Your task to perform on an android device: toggle translation in the chrome app Image 0: 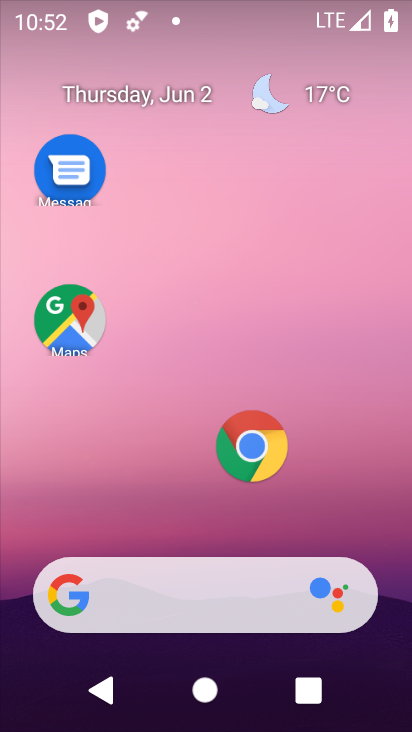
Step 0: press home button
Your task to perform on an android device: toggle translation in the chrome app Image 1: 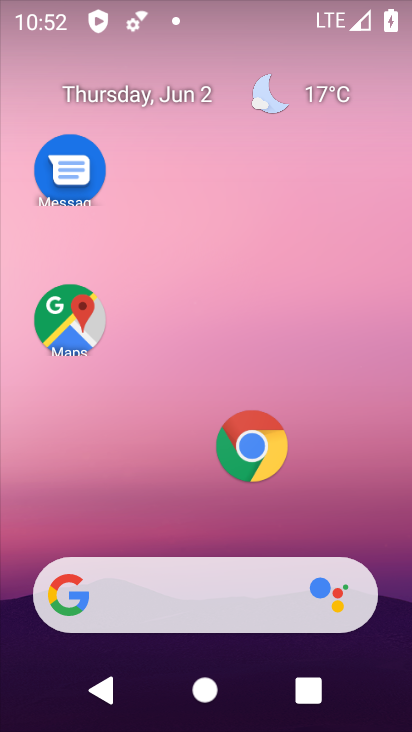
Step 1: click (253, 442)
Your task to perform on an android device: toggle translation in the chrome app Image 2: 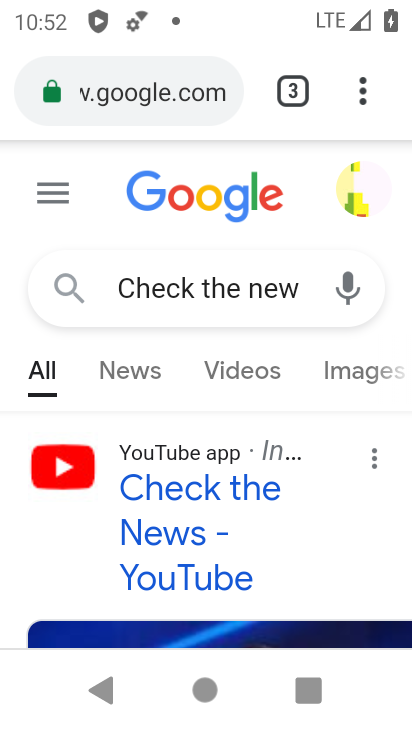
Step 2: drag from (346, 87) to (131, 457)
Your task to perform on an android device: toggle translation in the chrome app Image 3: 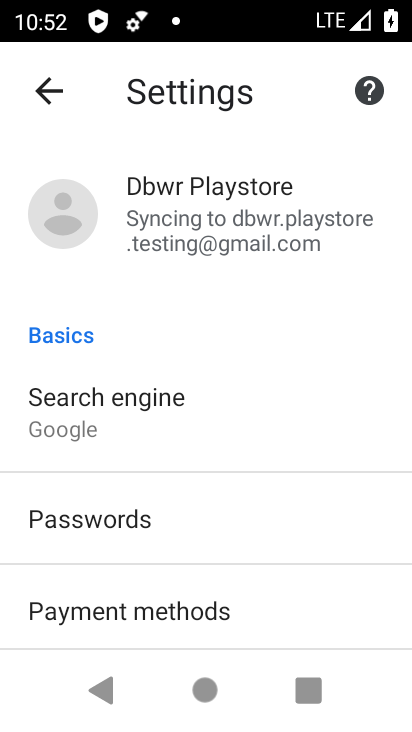
Step 3: drag from (216, 402) to (177, 224)
Your task to perform on an android device: toggle translation in the chrome app Image 4: 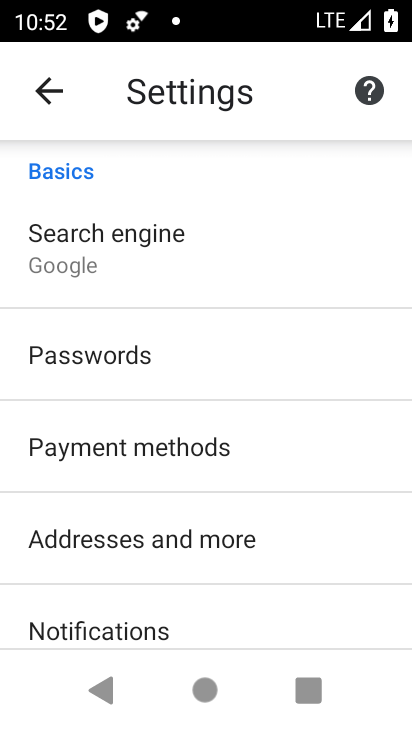
Step 4: drag from (247, 458) to (217, 191)
Your task to perform on an android device: toggle translation in the chrome app Image 5: 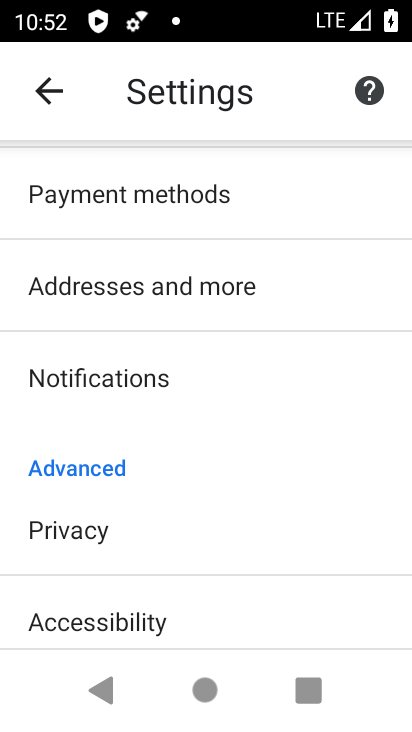
Step 5: drag from (217, 583) to (110, 277)
Your task to perform on an android device: toggle translation in the chrome app Image 6: 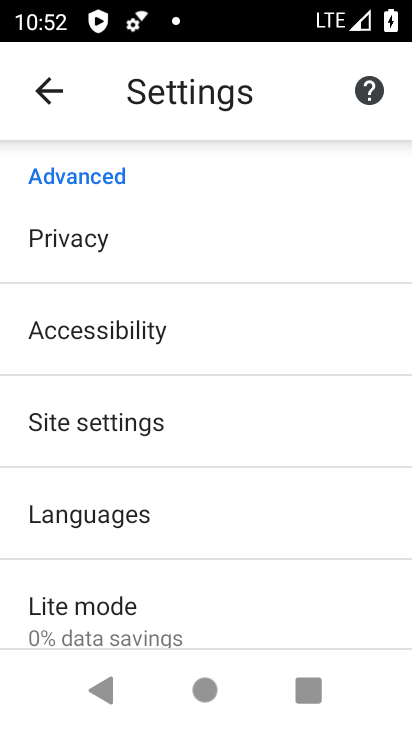
Step 6: click (135, 516)
Your task to perform on an android device: toggle translation in the chrome app Image 7: 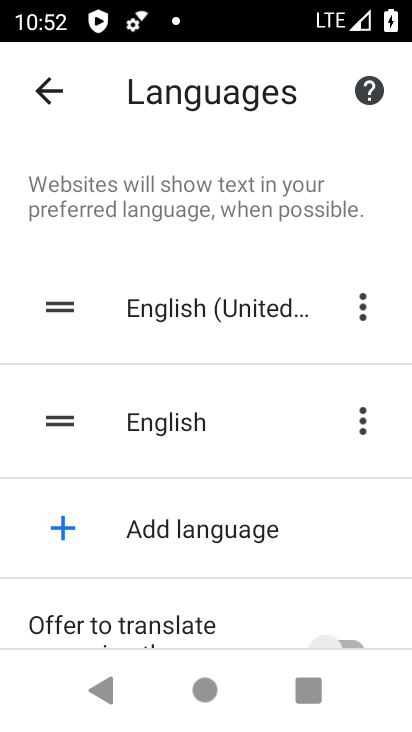
Step 7: drag from (234, 565) to (278, 311)
Your task to perform on an android device: toggle translation in the chrome app Image 8: 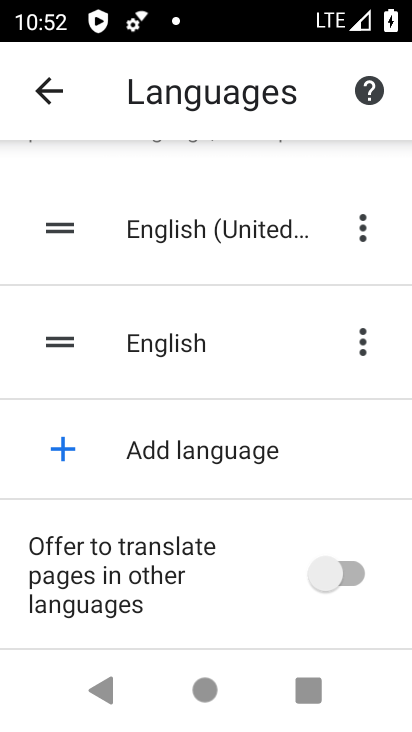
Step 8: click (173, 587)
Your task to perform on an android device: toggle translation in the chrome app Image 9: 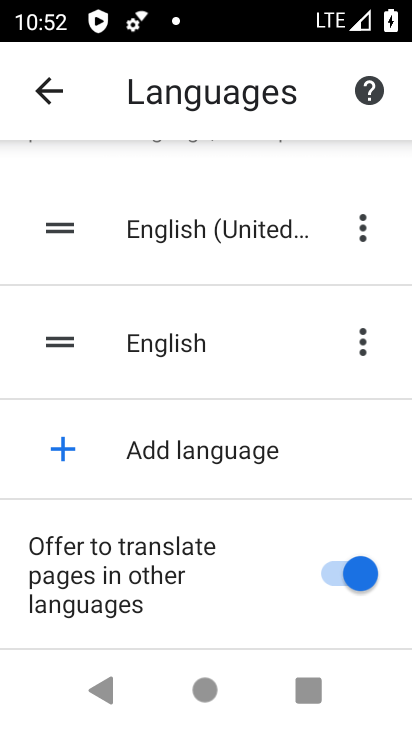
Step 9: task complete